Your task to perform on an android device: Search for pizza restaurants on Maps Image 0: 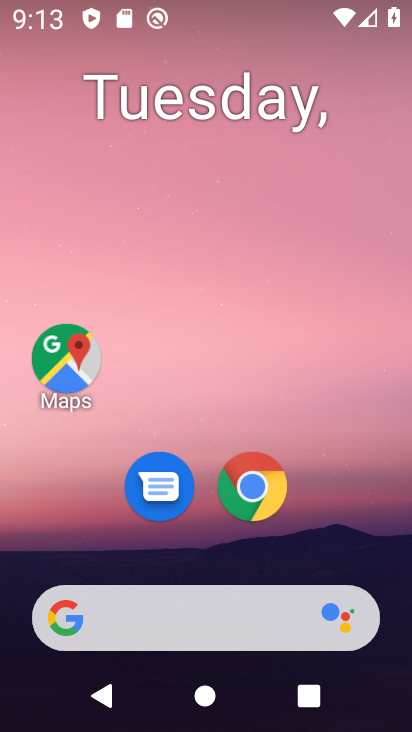
Step 0: press home button
Your task to perform on an android device: Search for pizza restaurants on Maps Image 1: 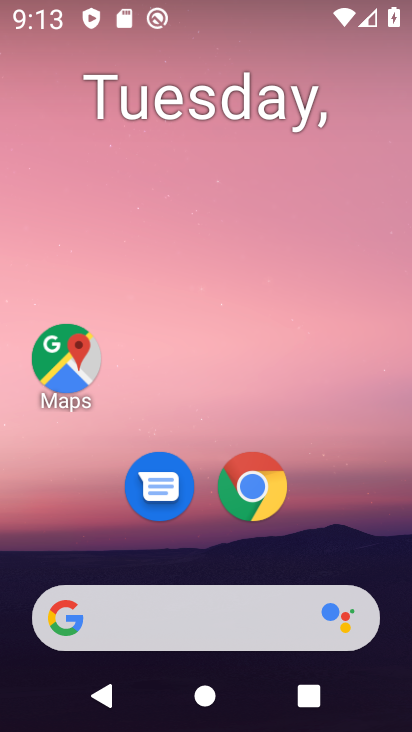
Step 1: drag from (369, 542) to (398, 165)
Your task to perform on an android device: Search for pizza restaurants on Maps Image 2: 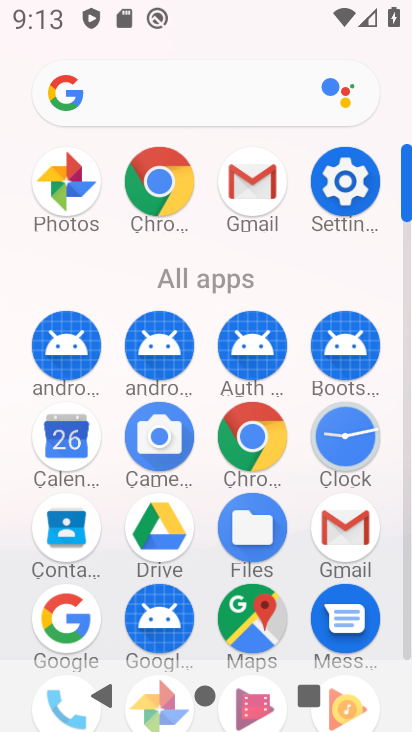
Step 2: click (251, 625)
Your task to perform on an android device: Search for pizza restaurants on Maps Image 3: 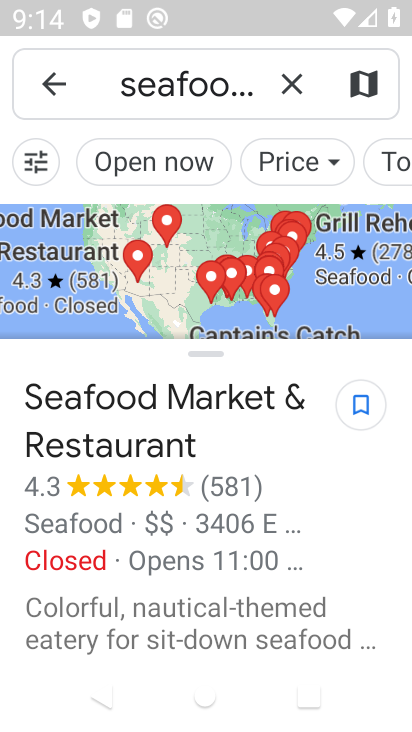
Step 3: press back button
Your task to perform on an android device: Search for pizza restaurants on Maps Image 4: 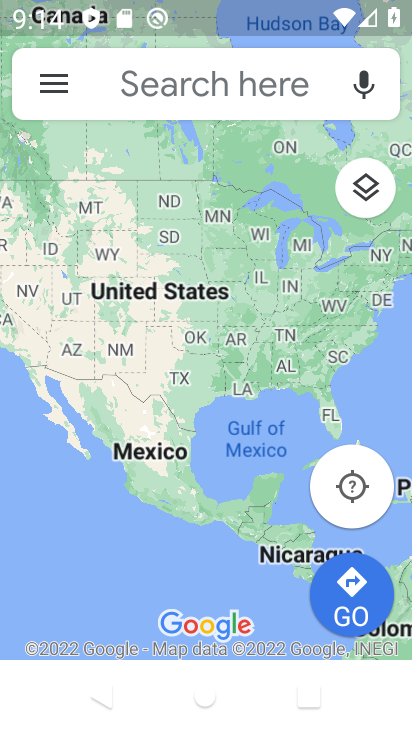
Step 4: click (184, 74)
Your task to perform on an android device: Search for pizza restaurants on Maps Image 5: 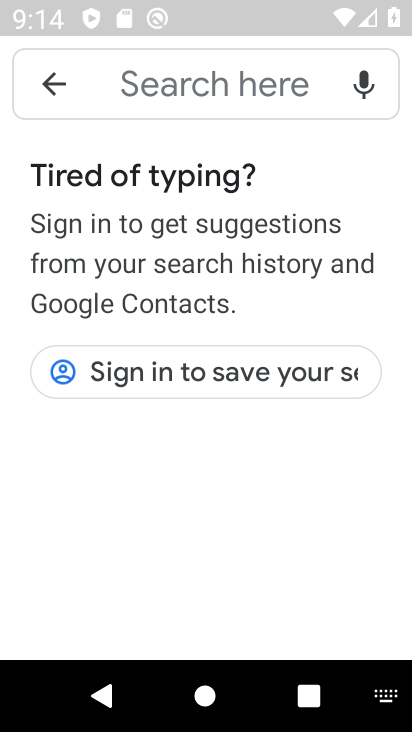
Step 5: type "pizza restaurants"
Your task to perform on an android device: Search for pizza restaurants on Maps Image 6: 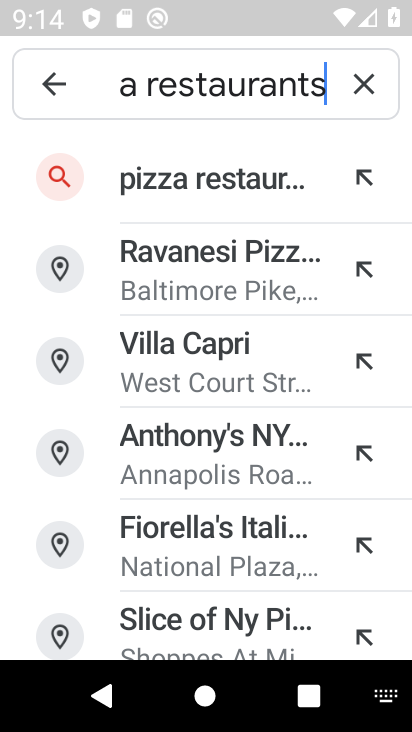
Step 6: click (260, 172)
Your task to perform on an android device: Search for pizza restaurants on Maps Image 7: 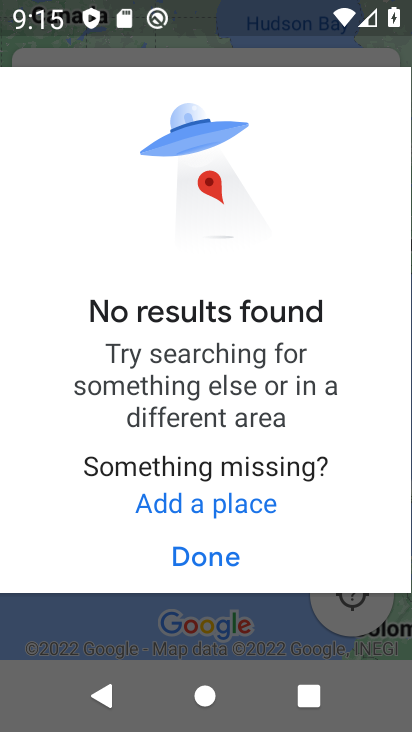
Step 7: task complete